Your task to perform on an android device: Go to eBay Image 0: 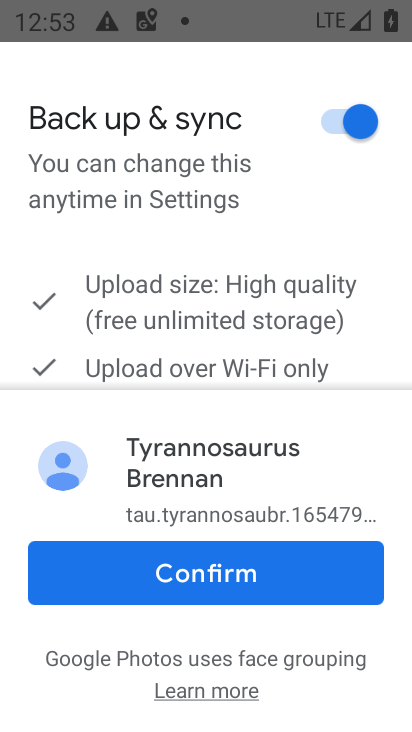
Step 0: press home button
Your task to perform on an android device: Go to eBay Image 1: 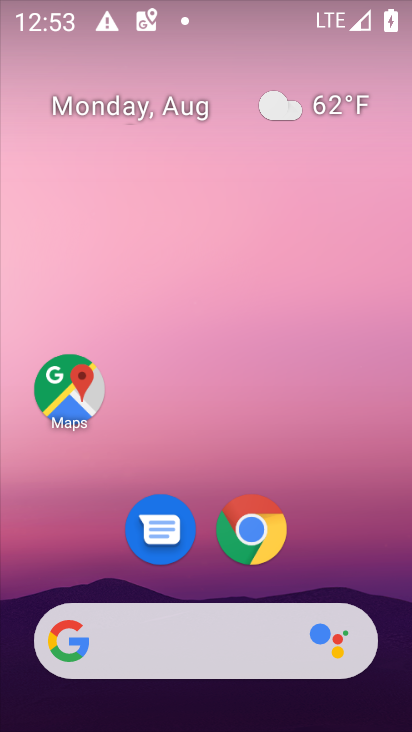
Step 1: drag from (197, 610) to (234, 280)
Your task to perform on an android device: Go to eBay Image 2: 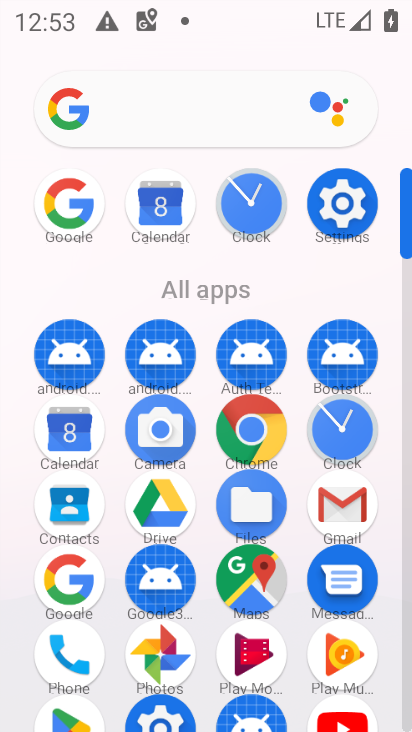
Step 2: click (81, 586)
Your task to perform on an android device: Go to eBay Image 3: 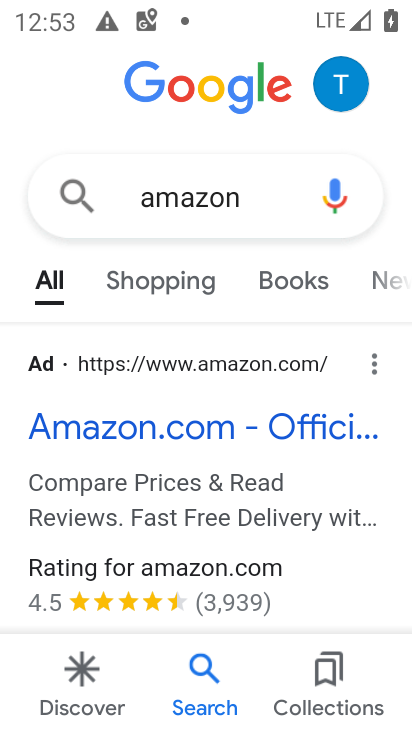
Step 3: click (251, 197)
Your task to perform on an android device: Go to eBay Image 4: 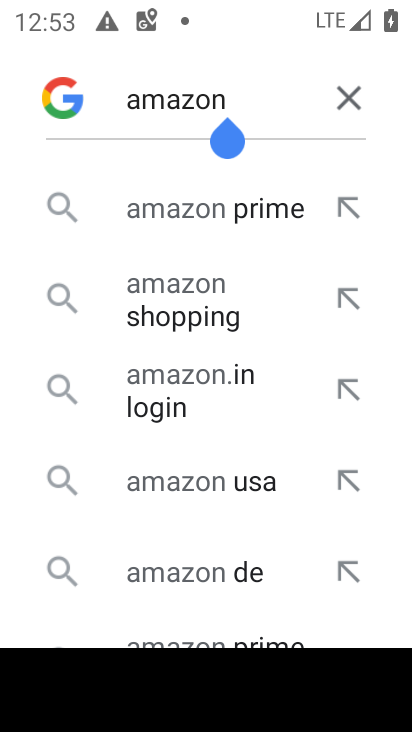
Step 4: click (352, 97)
Your task to perform on an android device: Go to eBay Image 5: 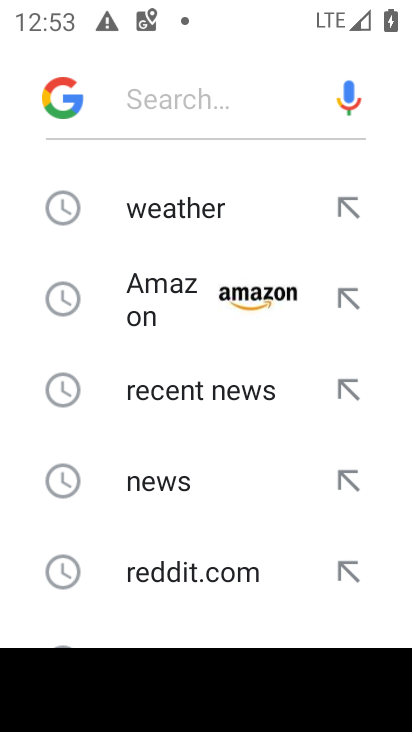
Step 5: drag from (204, 594) to (248, 295)
Your task to perform on an android device: Go to eBay Image 6: 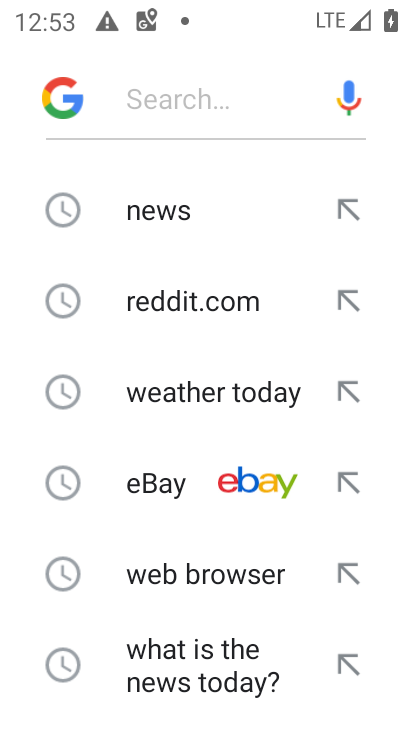
Step 6: click (196, 483)
Your task to perform on an android device: Go to eBay Image 7: 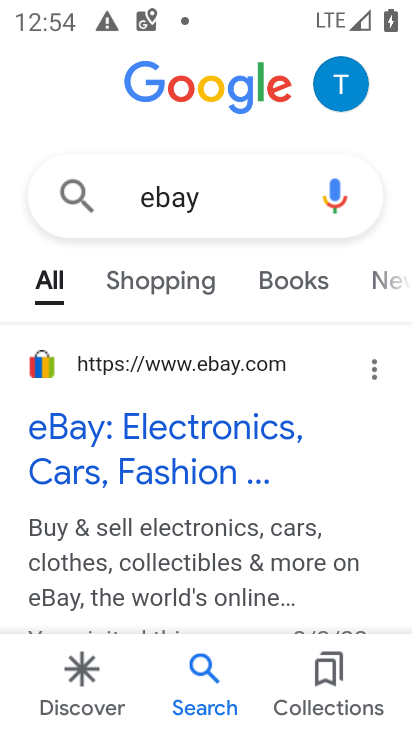
Step 7: click (174, 457)
Your task to perform on an android device: Go to eBay Image 8: 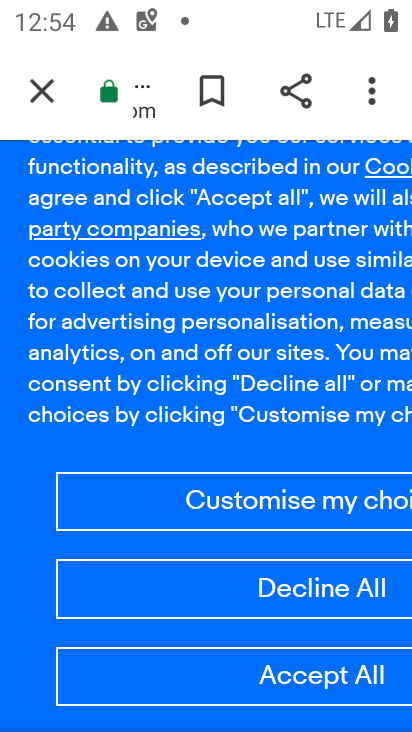
Step 8: task complete